Your task to perform on an android device: delete the emails in spam in the gmail app Image 0: 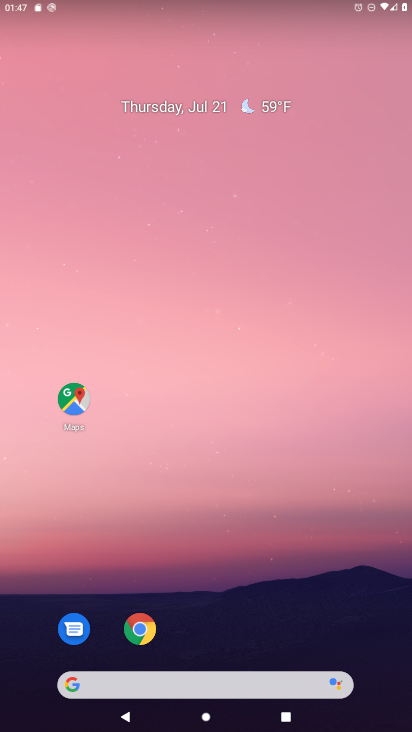
Step 0: drag from (382, 641) to (367, 52)
Your task to perform on an android device: delete the emails in spam in the gmail app Image 1: 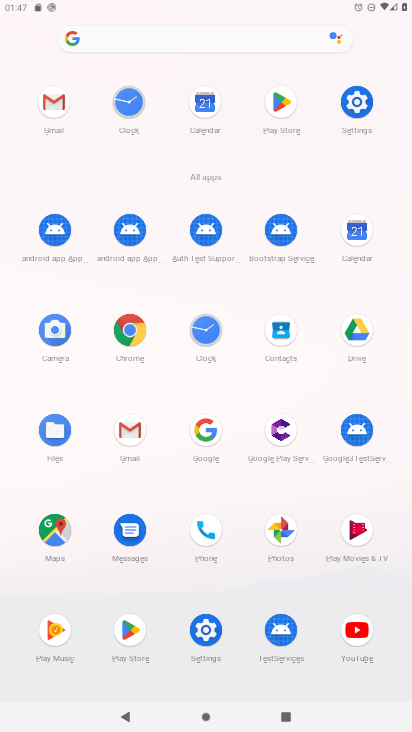
Step 1: click (128, 430)
Your task to perform on an android device: delete the emails in spam in the gmail app Image 2: 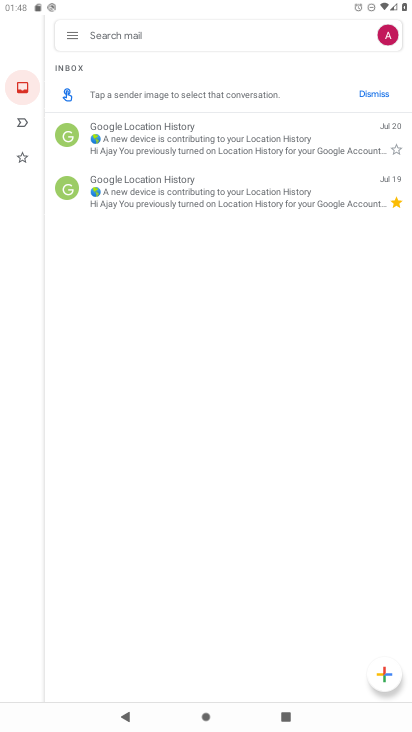
Step 2: click (74, 39)
Your task to perform on an android device: delete the emails in spam in the gmail app Image 3: 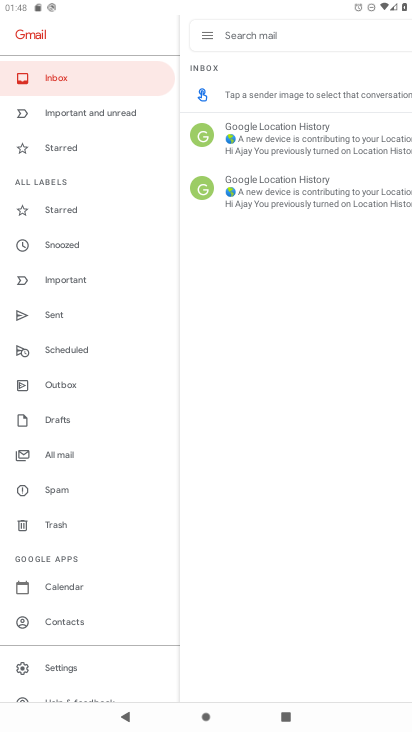
Step 3: click (55, 486)
Your task to perform on an android device: delete the emails in spam in the gmail app Image 4: 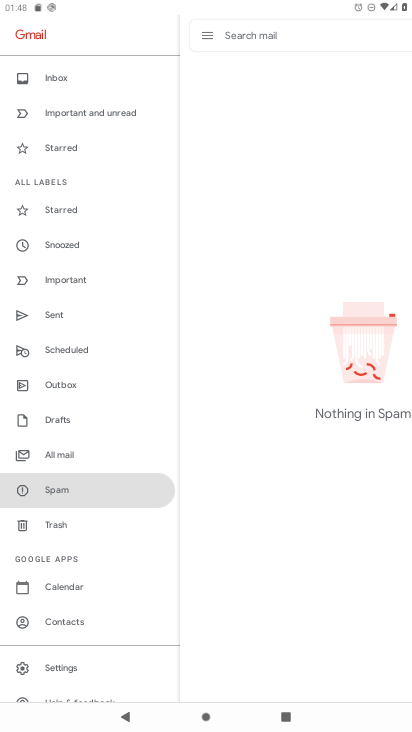
Step 4: task complete